Your task to perform on an android device: toggle airplane mode Image 0: 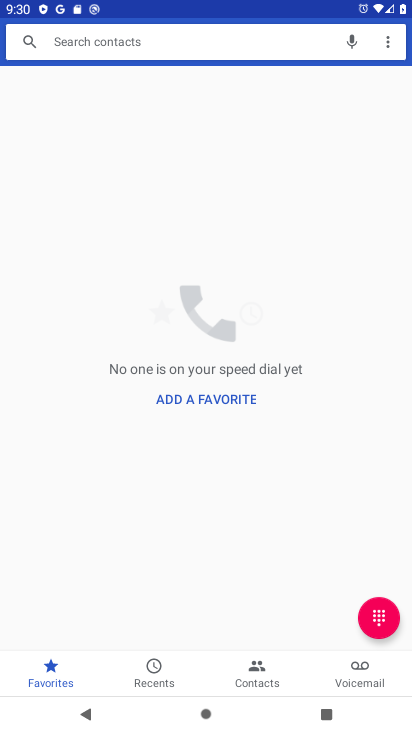
Step 0: drag from (213, 4) to (138, 371)
Your task to perform on an android device: toggle airplane mode Image 1: 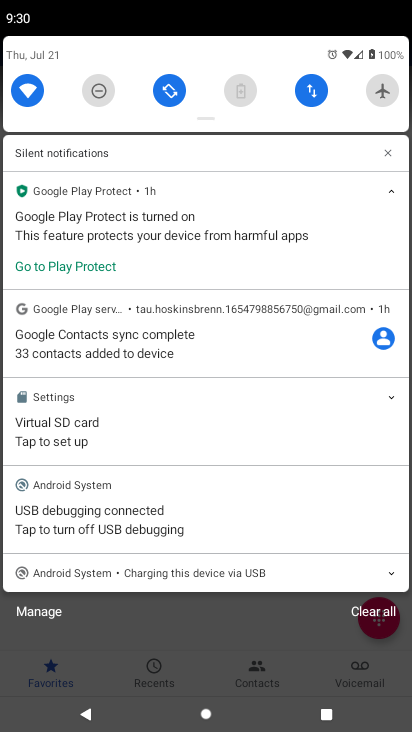
Step 1: click (380, 90)
Your task to perform on an android device: toggle airplane mode Image 2: 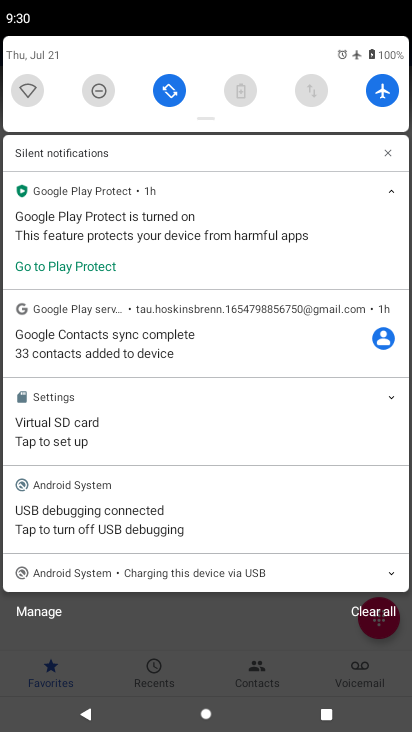
Step 2: task complete